Your task to perform on an android device: Look up the best rated book on Goodreads Image 0: 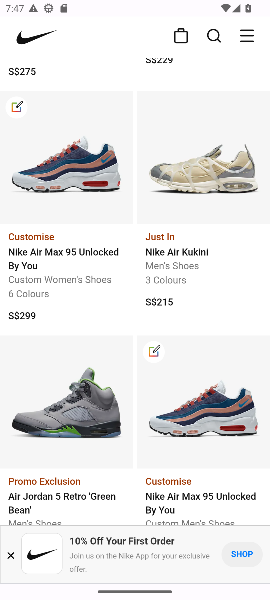
Step 0: drag from (164, 141) to (178, 254)
Your task to perform on an android device: Look up the best rated book on Goodreads Image 1: 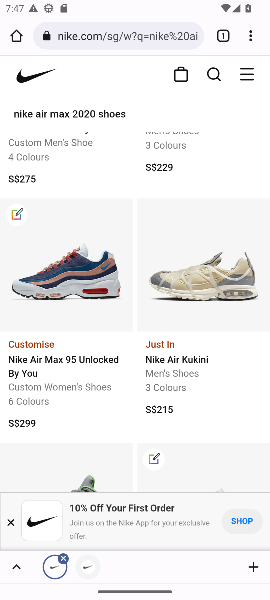
Step 1: press home button
Your task to perform on an android device: Look up the best rated book on Goodreads Image 2: 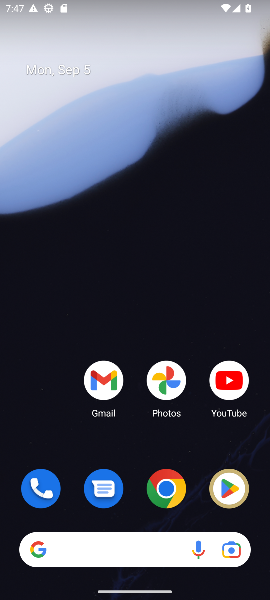
Step 2: click (163, 491)
Your task to perform on an android device: Look up the best rated book on Goodreads Image 3: 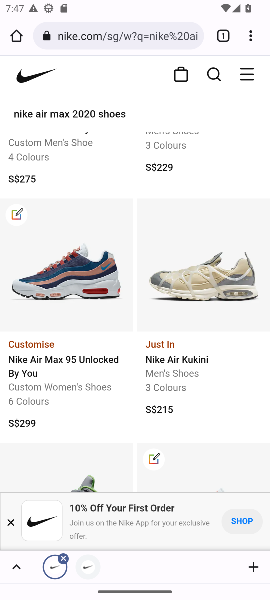
Step 3: press home button
Your task to perform on an android device: Look up the best rated book on Goodreads Image 4: 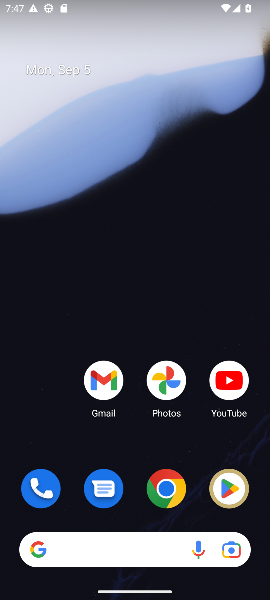
Step 4: click (164, 471)
Your task to perform on an android device: Look up the best rated book on Goodreads Image 5: 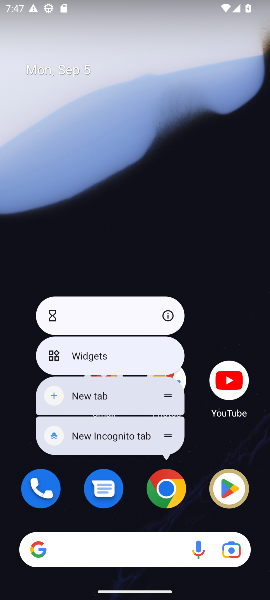
Step 5: click (179, 495)
Your task to perform on an android device: Look up the best rated book on Goodreads Image 6: 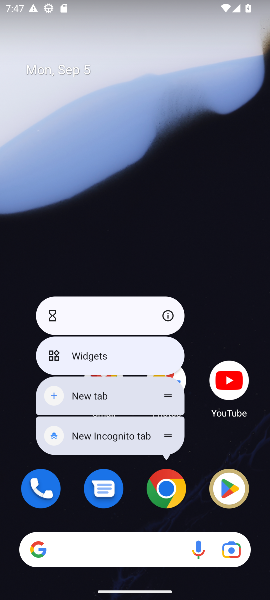
Step 6: click (172, 491)
Your task to perform on an android device: Look up the best rated book on Goodreads Image 7: 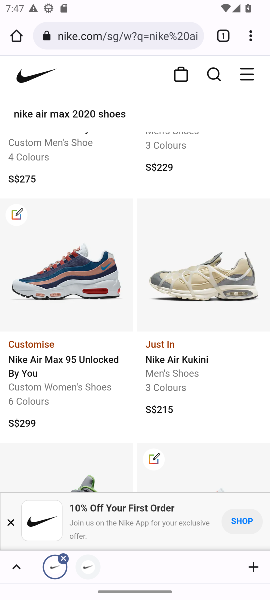
Step 7: click (145, 34)
Your task to perform on an android device: Look up the best rated book on Goodreads Image 8: 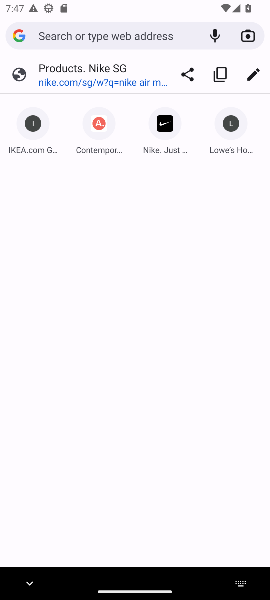
Step 8: click (104, 32)
Your task to perform on an android device: Look up the best rated book on Goodreads Image 9: 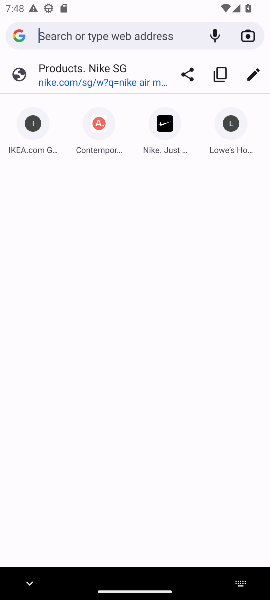
Step 9: type "goodreads"
Your task to perform on an android device: Look up the best rated book on Goodreads Image 10: 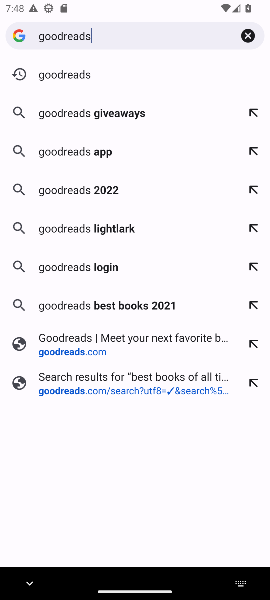
Step 10: press enter
Your task to perform on an android device: Look up the best rated book on Goodreads Image 11: 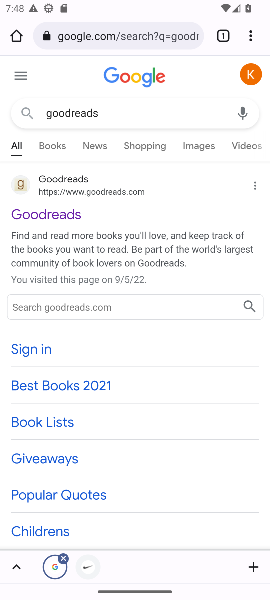
Step 11: click (59, 213)
Your task to perform on an android device: Look up the best rated book on Goodreads Image 12: 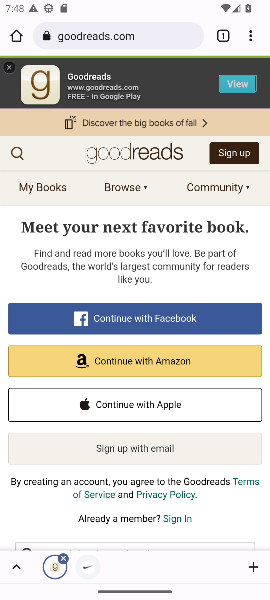
Step 12: click (86, 539)
Your task to perform on an android device: Look up the best rated book on Goodreads Image 13: 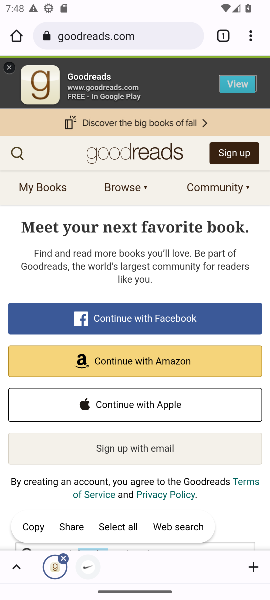
Step 13: drag from (89, 501) to (129, 319)
Your task to perform on an android device: Look up the best rated book on Goodreads Image 14: 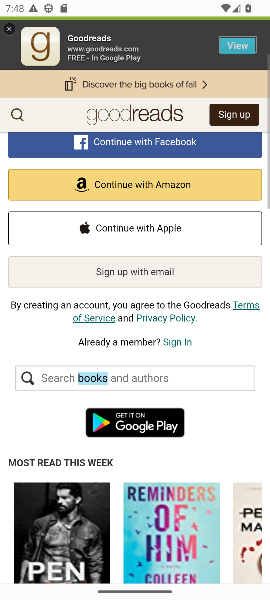
Step 14: click (119, 384)
Your task to perform on an android device: Look up the best rated book on Goodreads Image 15: 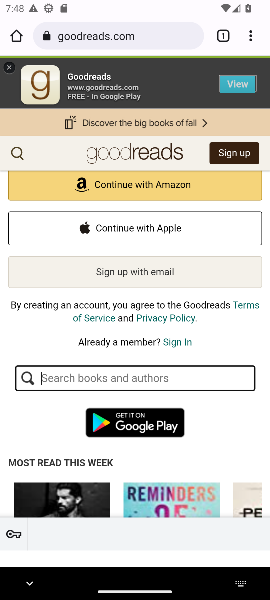
Step 15: type "best rated book"
Your task to perform on an android device: Look up the best rated book on Goodreads Image 16: 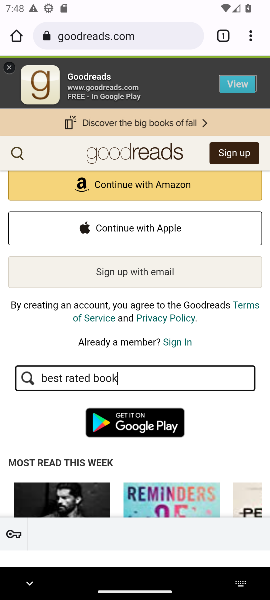
Step 16: press enter
Your task to perform on an android device: Look up the best rated book on Goodreads Image 17: 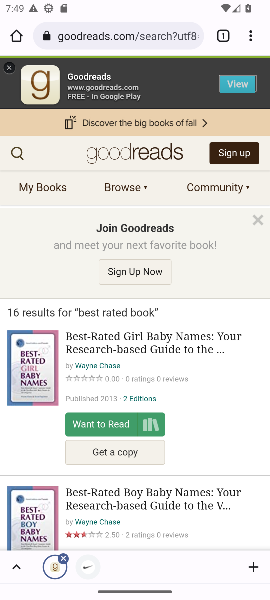
Step 17: task complete